Your task to perform on an android device: read, delete, or share a saved page in the chrome app Image 0: 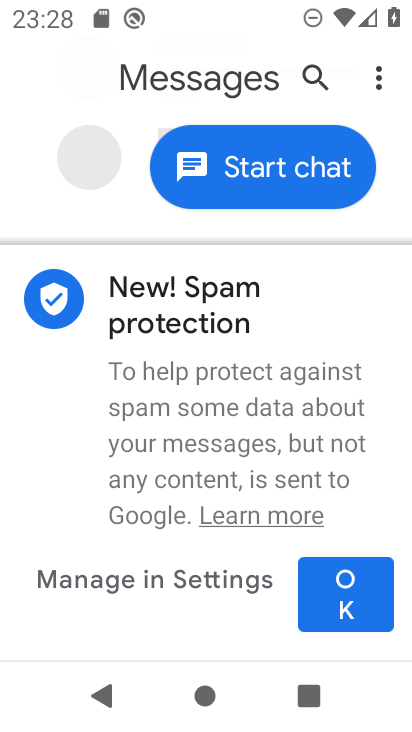
Step 0: click (383, 82)
Your task to perform on an android device: read, delete, or share a saved page in the chrome app Image 1: 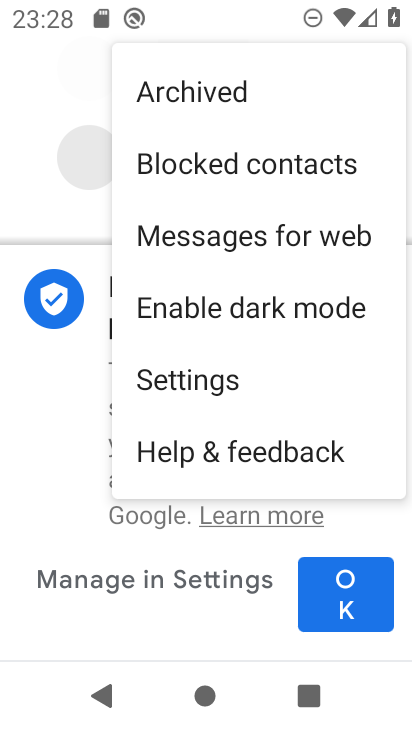
Step 1: click (292, 393)
Your task to perform on an android device: read, delete, or share a saved page in the chrome app Image 2: 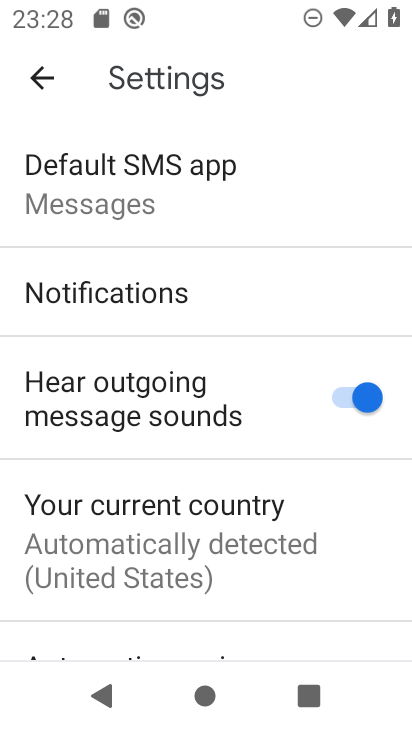
Step 2: task complete